Your task to perform on an android device: Open Amazon Image 0: 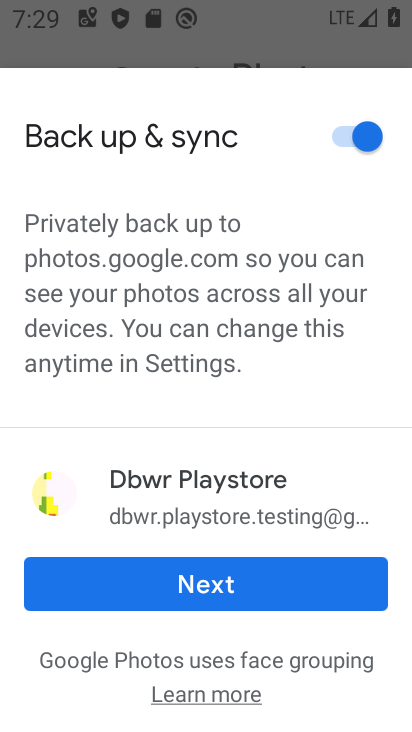
Step 0: press home button
Your task to perform on an android device: Open Amazon Image 1: 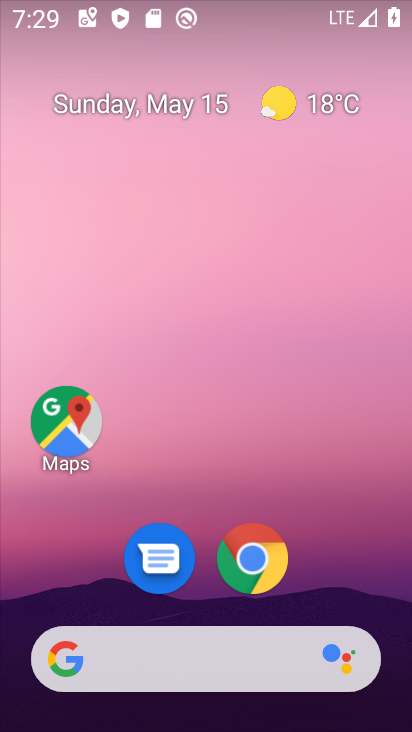
Step 1: click (254, 561)
Your task to perform on an android device: Open Amazon Image 2: 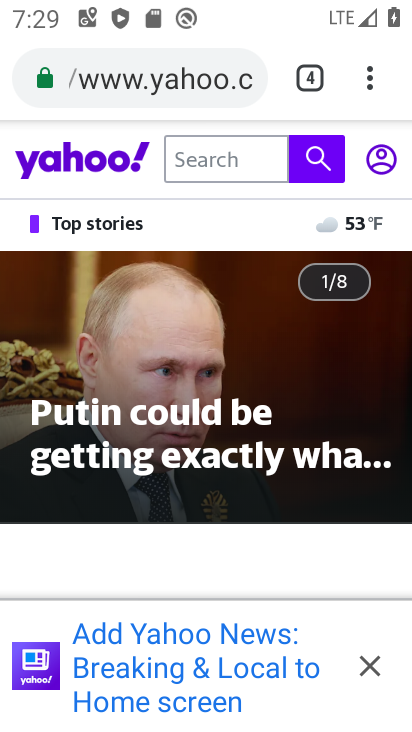
Step 2: click (370, 76)
Your task to perform on an android device: Open Amazon Image 3: 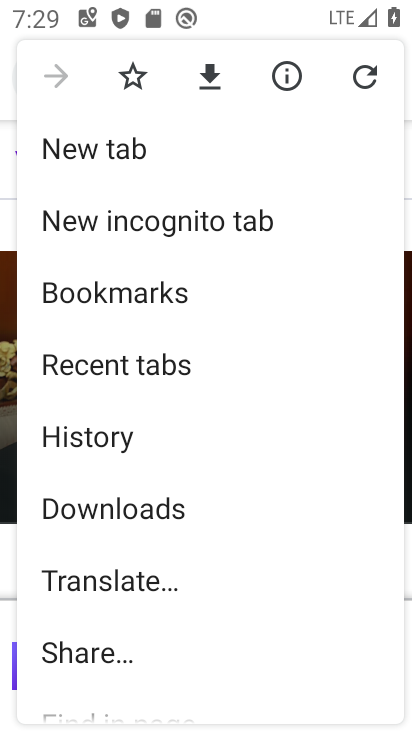
Step 3: click (109, 151)
Your task to perform on an android device: Open Amazon Image 4: 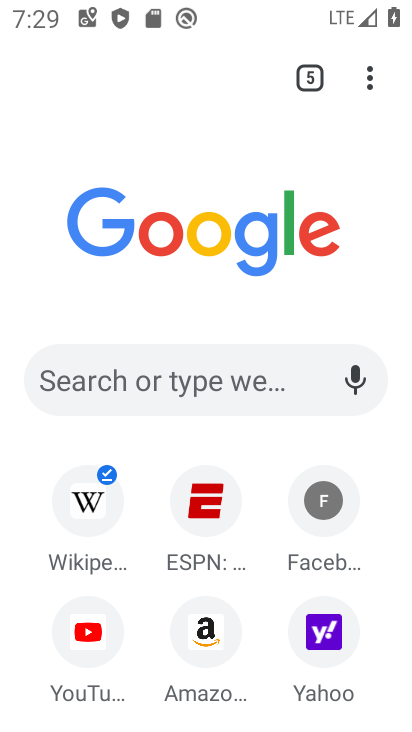
Step 4: click (203, 630)
Your task to perform on an android device: Open Amazon Image 5: 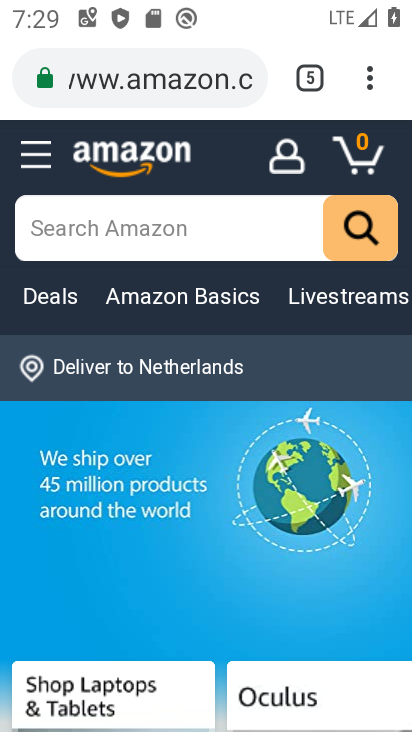
Step 5: task complete